Your task to perform on an android device: check out phone information Image 0: 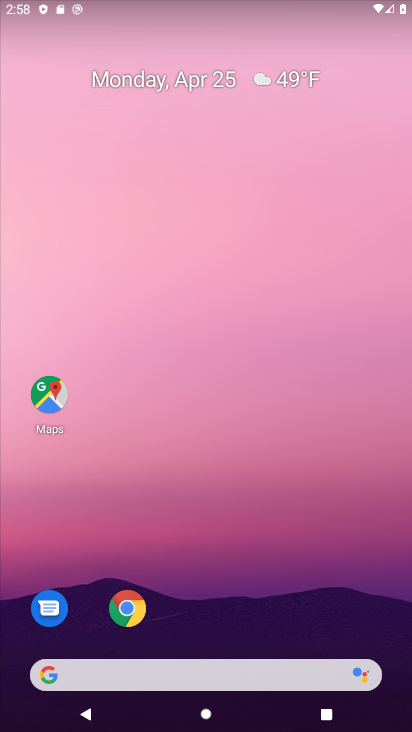
Step 0: drag from (166, 663) to (146, 12)
Your task to perform on an android device: check out phone information Image 1: 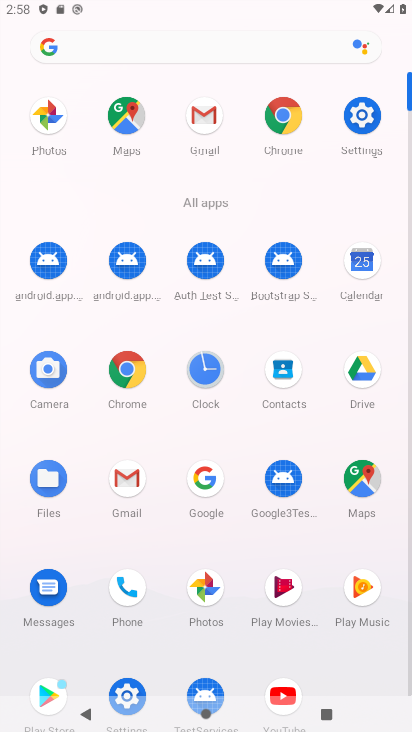
Step 1: click (125, 687)
Your task to perform on an android device: check out phone information Image 2: 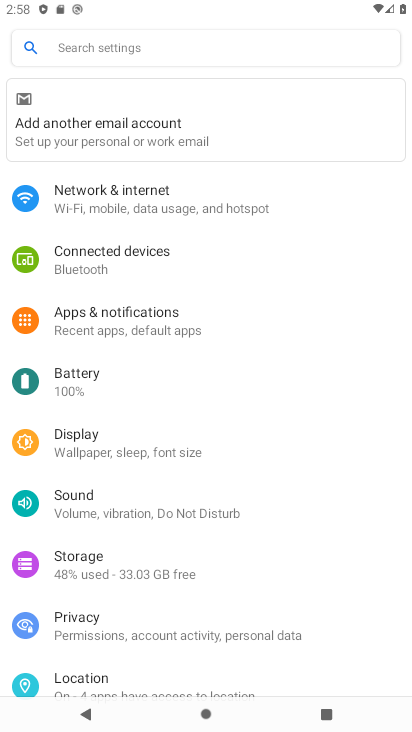
Step 2: drag from (156, 543) to (121, 22)
Your task to perform on an android device: check out phone information Image 3: 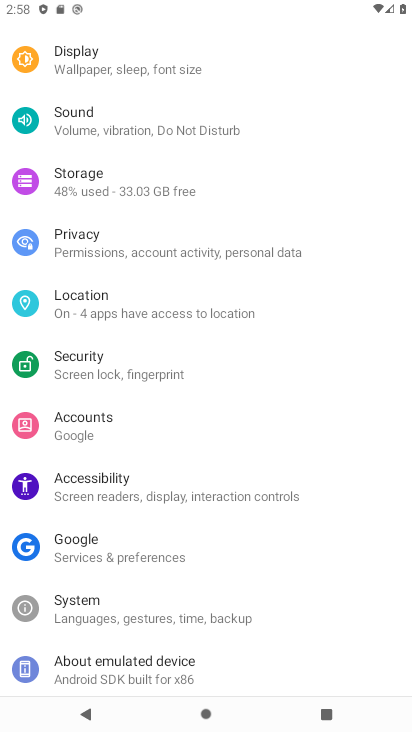
Step 3: drag from (121, 496) to (123, 50)
Your task to perform on an android device: check out phone information Image 4: 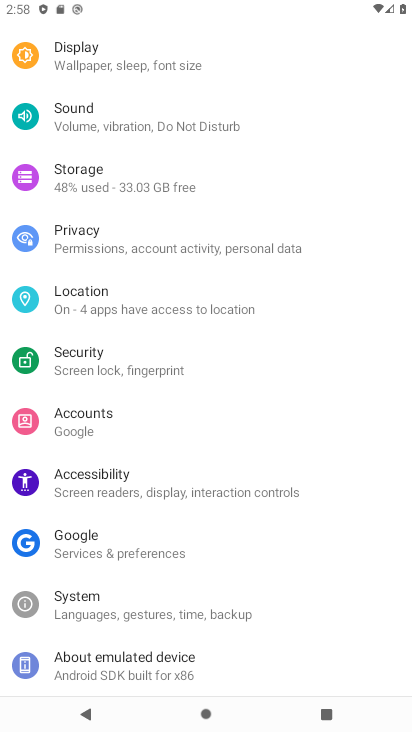
Step 4: click (160, 657)
Your task to perform on an android device: check out phone information Image 5: 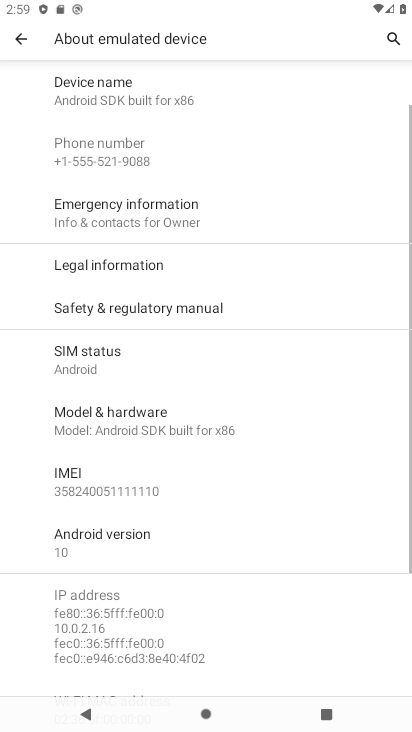
Step 5: task complete